Your task to perform on an android device: Go to Google maps Image 0: 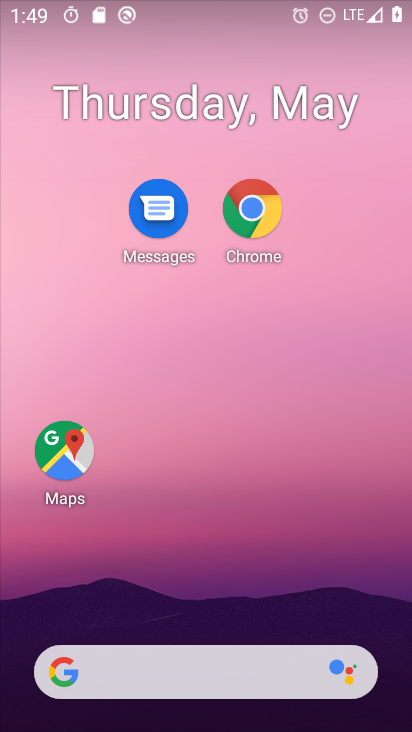
Step 0: click (49, 465)
Your task to perform on an android device: Go to Google maps Image 1: 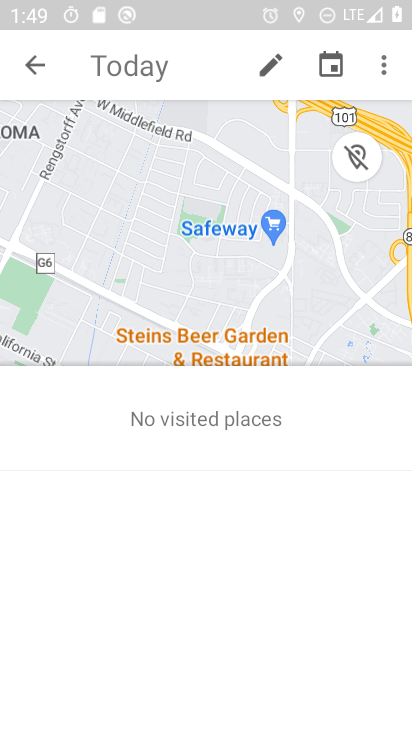
Step 1: click (36, 64)
Your task to perform on an android device: Go to Google maps Image 2: 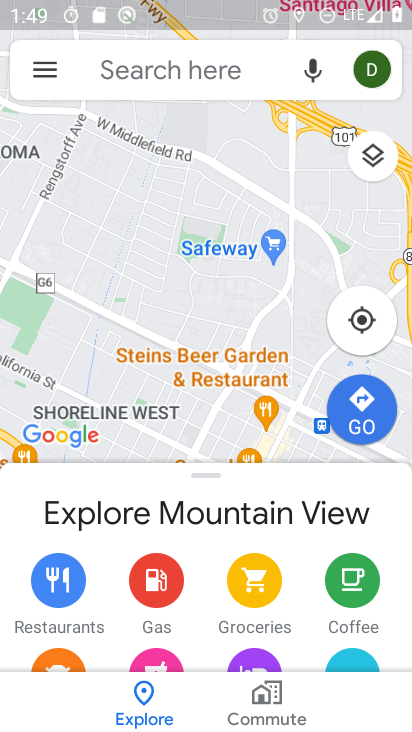
Step 2: task complete